Your task to perform on an android device: When is my next appointment? Image 0: 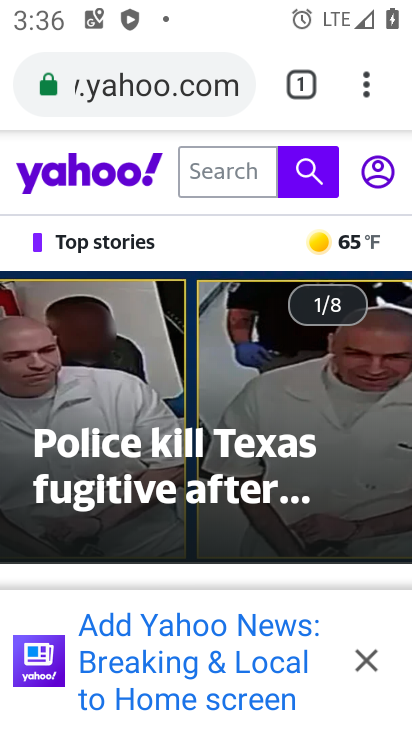
Step 0: press home button
Your task to perform on an android device: When is my next appointment? Image 1: 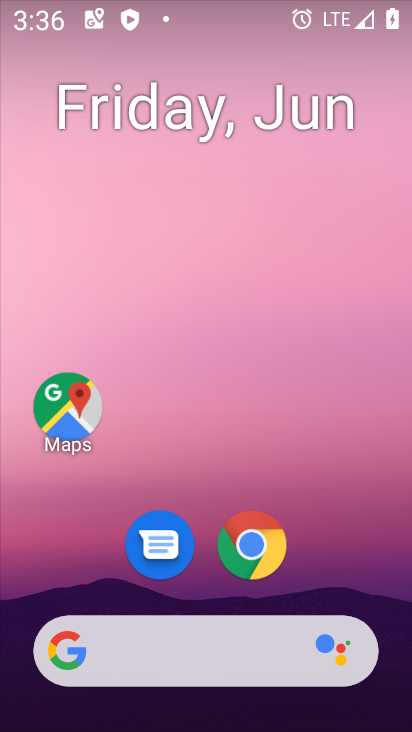
Step 1: drag from (314, 527) to (320, 15)
Your task to perform on an android device: When is my next appointment? Image 2: 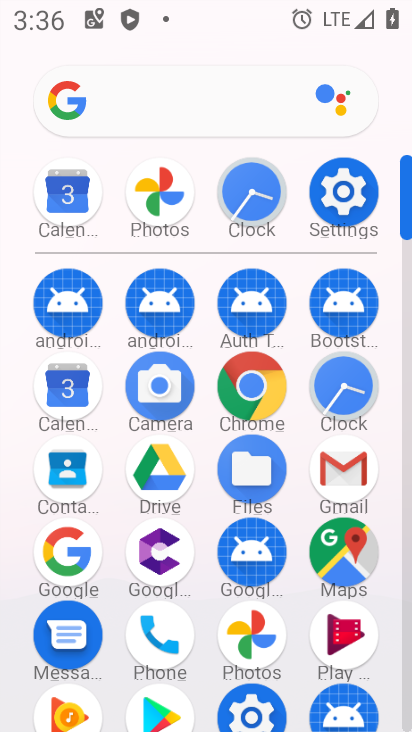
Step 2: click (68, 396)
Your task to perform on an android device: When is my next appointment? Image 3: 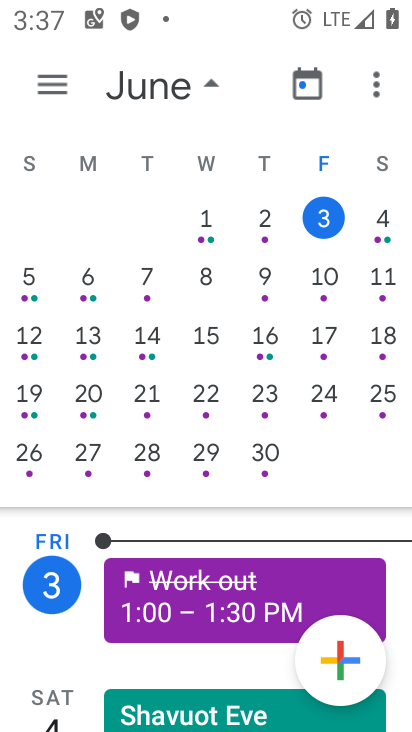
Step 3: click (318, 219)
Your task to perform on an android device: When is my next appointment? Image 4: 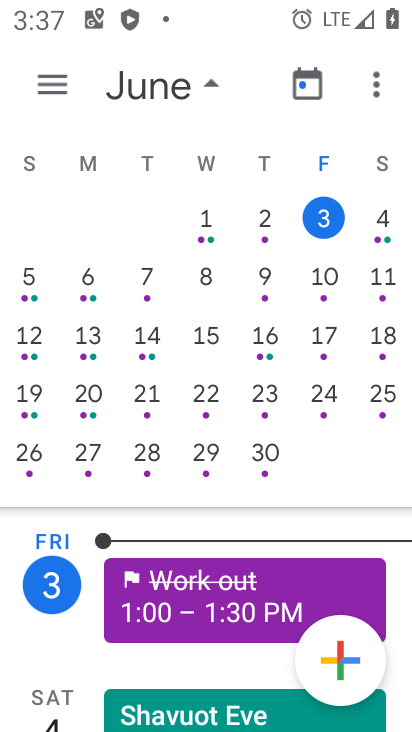
Step 4: task complete